Your task to perform on an android device: snooze an email in the gmail app Image 0: 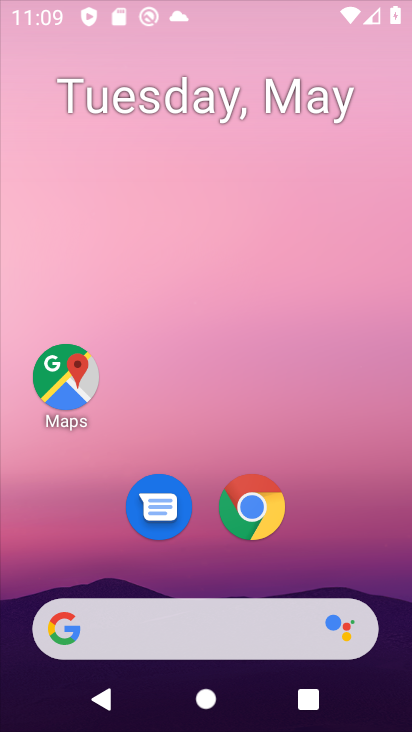
Step 0: drag from (262, 720) to (162, 50)
Your task to perform on an android device: snooze an email in the gmail app Image 1: 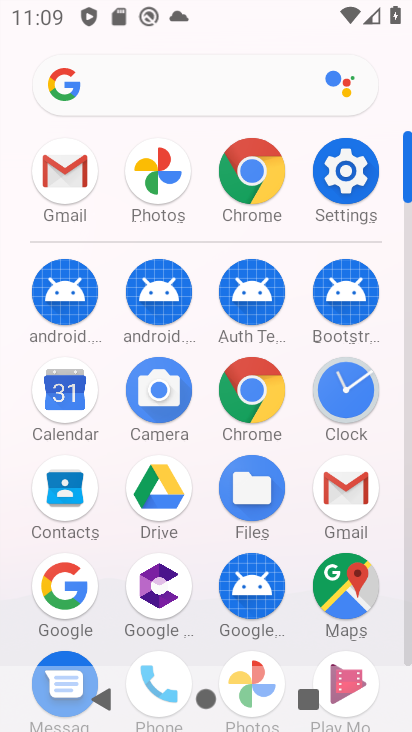
Step 1: click (334, 495)
Your task to perform on an android device: snooze an email in the gmail app Image 2: 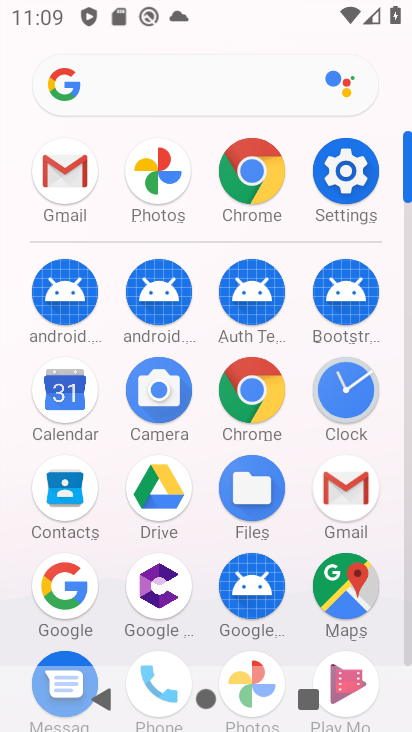
Step 2: click (334, 495)
Your task to perform on an android device: snooze an email in the gmail app Image 3: 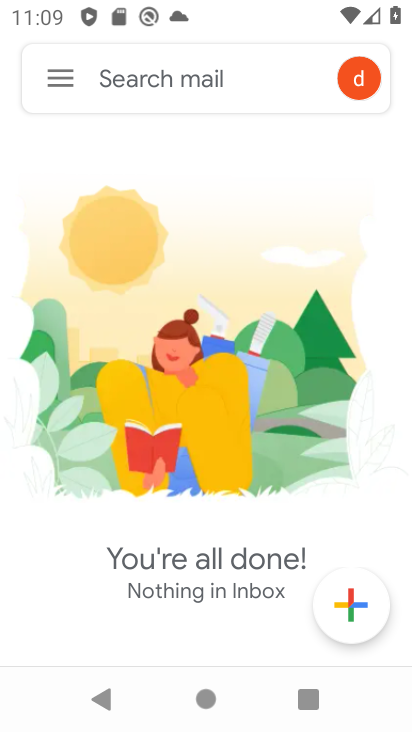
Step 3: click (59, 79)
Your task to perform on an android device: snooze an email in the gmail app Image 4: 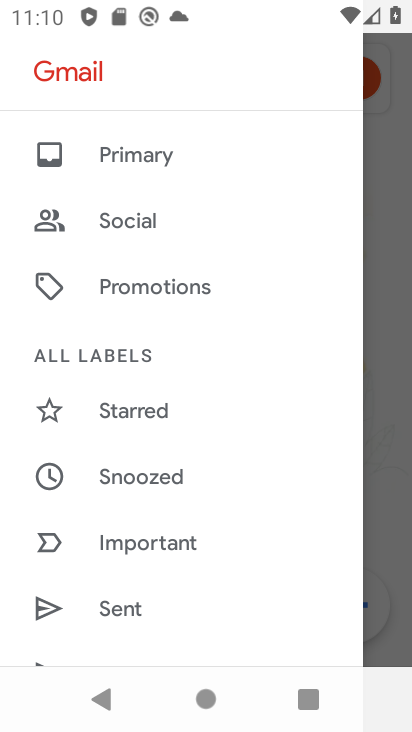
Step 4: click (148, 476)
Your task to perform on an android device: snooze an email in the gmail app Image 5: 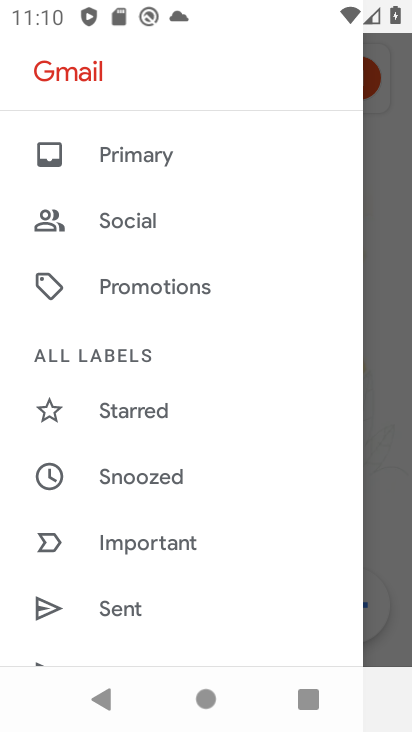
Step 5: click (148, 476)
Your task to perform on an android device: snooze an email in the gmail app Image 6: 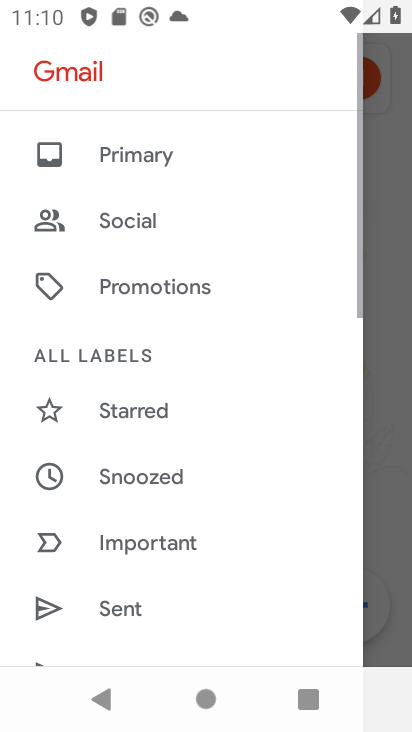
Step 6: click (150, 473)
Your task to perform on an android device: snooze an email in the gmail app Image 7: 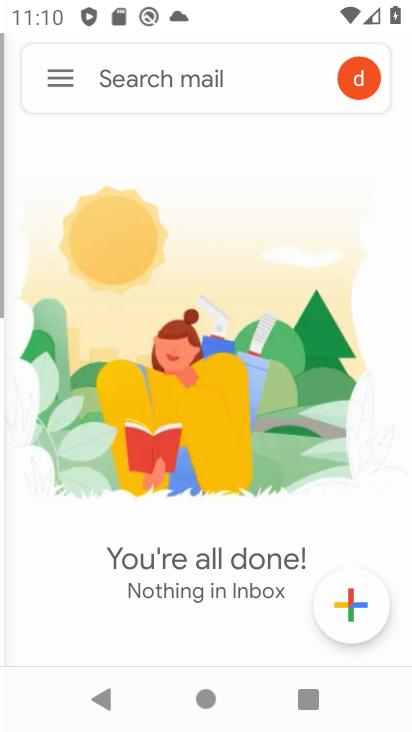
Step 7: click (150, 473)
Your task to perform on an android device: snooze an email in the gmail app Image 8: 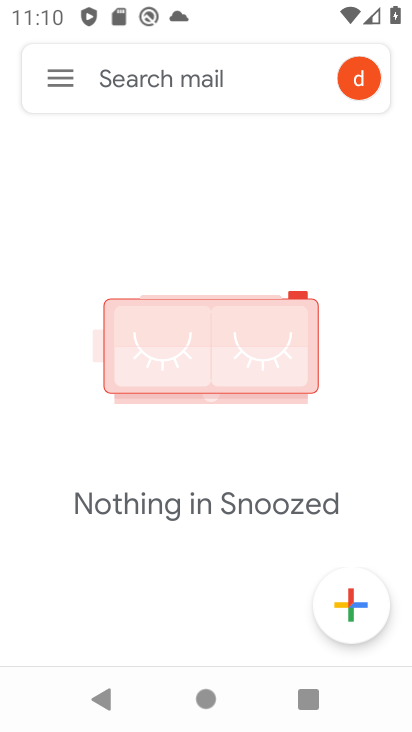
Step 8: task complete